Your task to perform on an android device: Open the phone app and click the voicemail tab. Image 0: 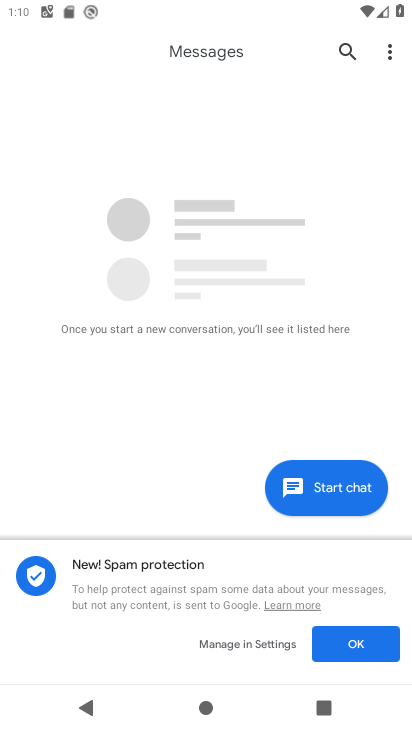
Step 0: press home button
Your task to perform on an android device: Open the phone app and click the voicemail tab. Image 1: 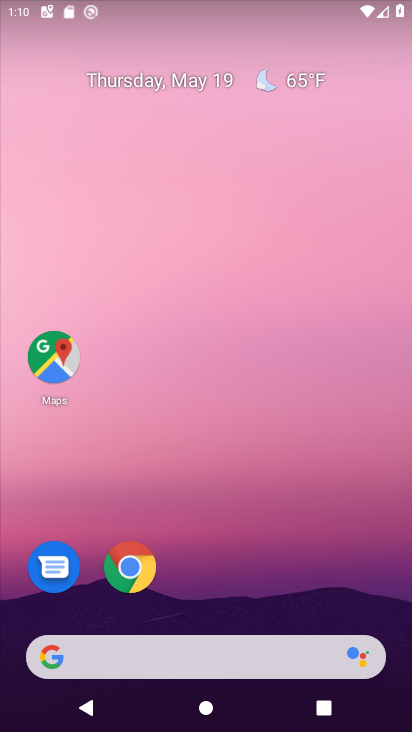
Step 1: drag from (241, 542) to (264, 246)
Your task to perform on an android device: Open the phone app and click the voicemail tab. Image 2: 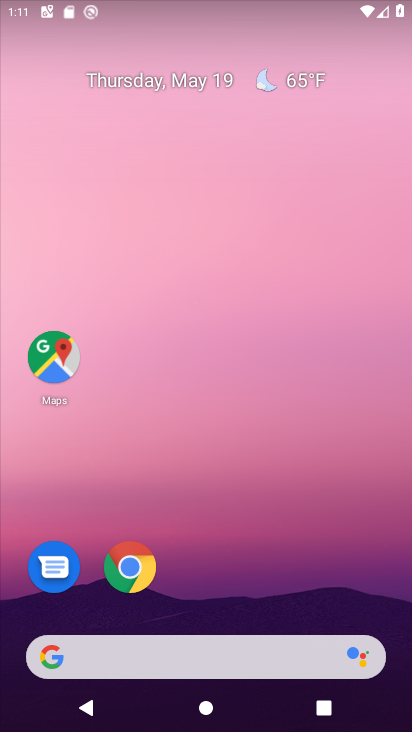
Step 2: drag from (218, 601) to (286, 67)
Your task to perform on an android device: Open the phone app and click the voicemail tab. Image 3: 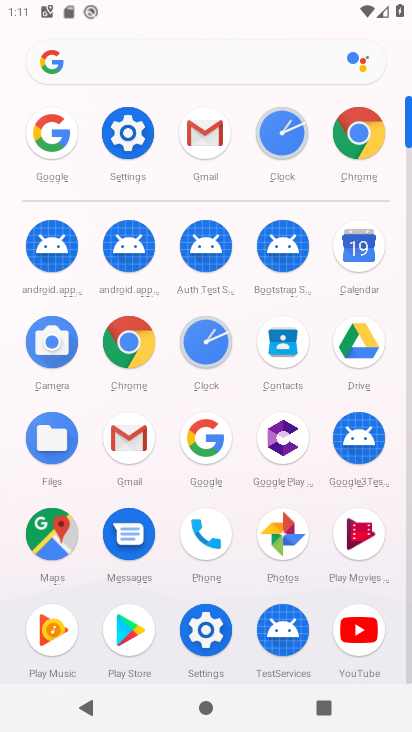
Step 3: click (204, 546)
Your task to perform on an android device: Open the phone app and click the voicemail tab. Image 4: 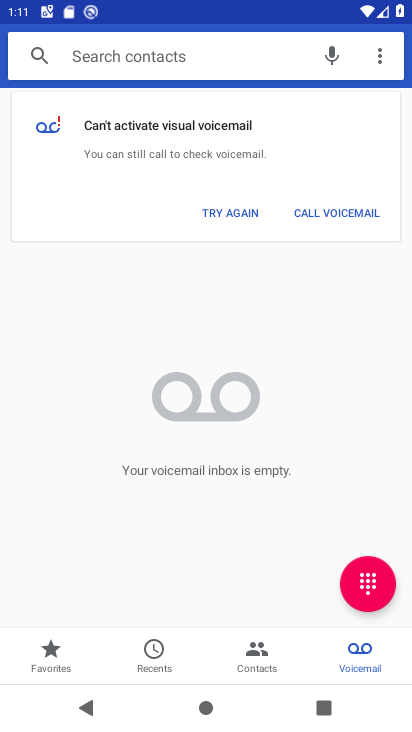
Step 4: task complete